Your task to perform on an android device: Search for bose soundlink mini on bestbuy.com, select the first entry, add it to the cart, then select checkout. Image 0: 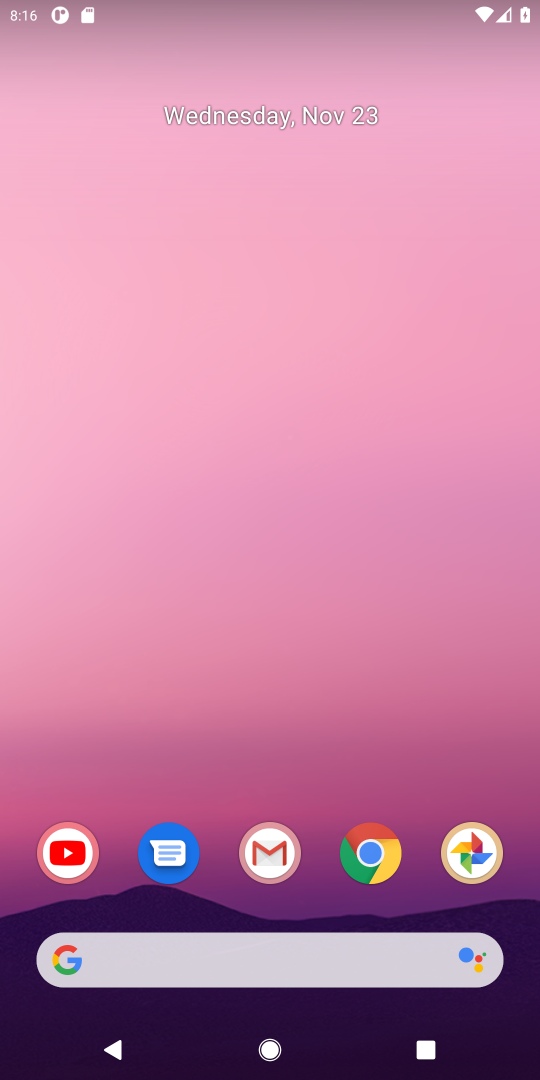
Step 0: click (376, 863)
Your task to perform on an android device: Search for bose soundlink mini on bestbuy.com, select the first entry, add it to the cart, then select checkout. Image 1: 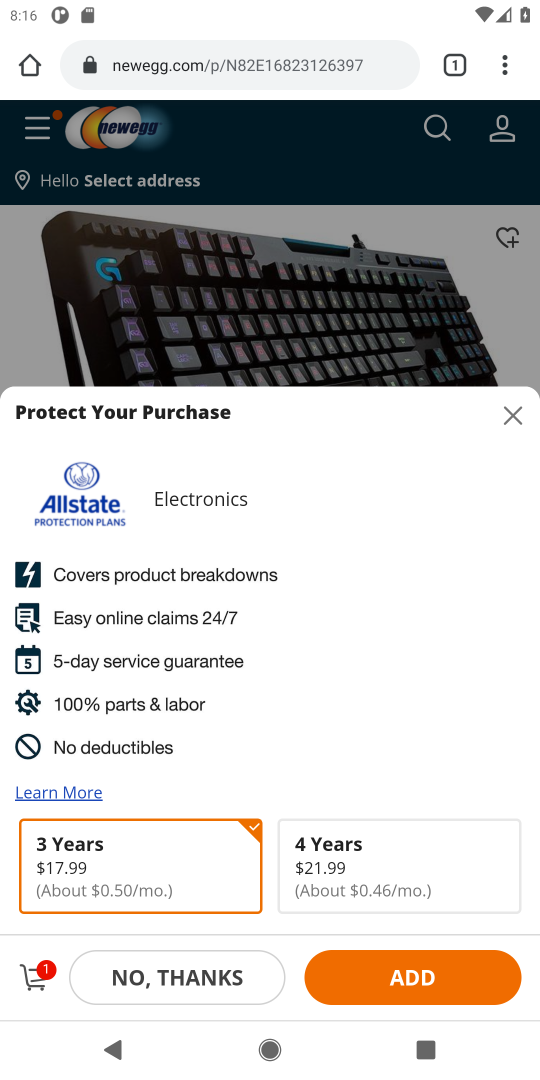
Step 1: click (241, 68)
Your task to perform on an android device: Search for bose soundlink mini on bestbuy.com, select the first entry, add it to the cart, then select checkout. Image 2: 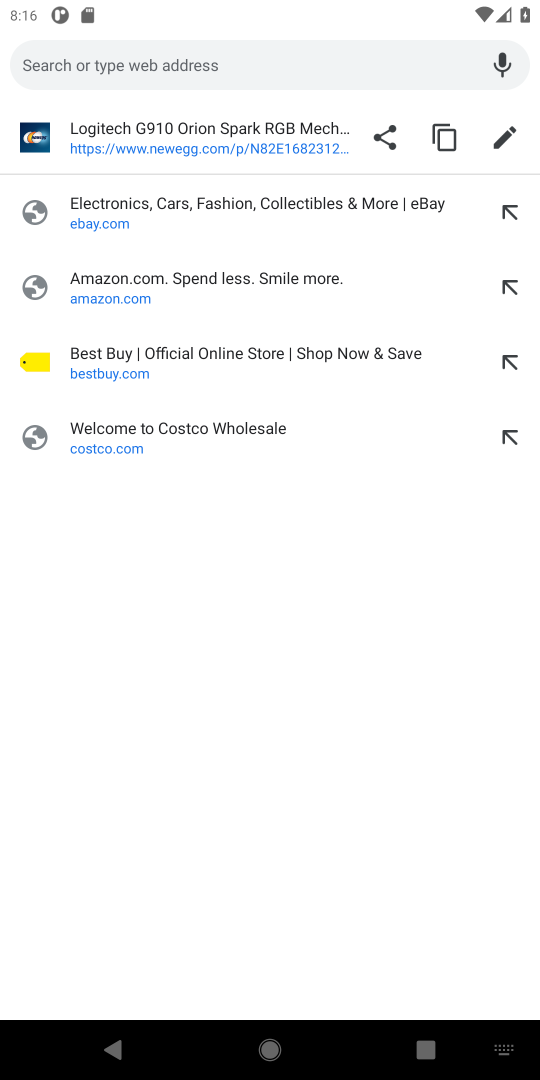
Step 2: click (107, 371)
Your task to perform on an android device: Search for bose soundlink mini on bestbuy.com, select the first entry, add it to the cart, then select checkout. Image 3: 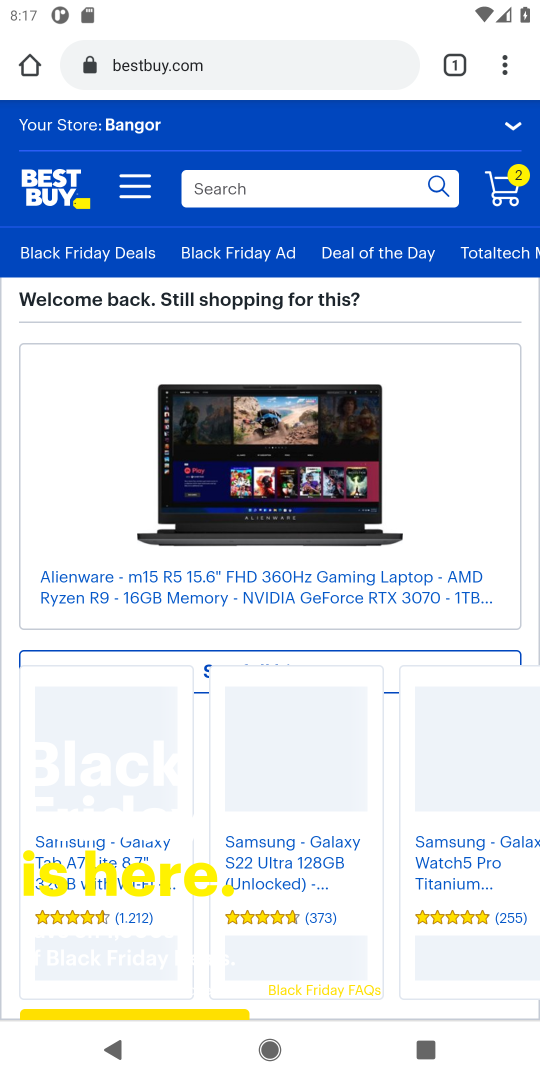
Step 3: click (223, 191)
Your task to perform on an android device: Search for bose soundlink mini on bestbuy.com, select the first entry, add it to the cart, then select checkout. Image 4: 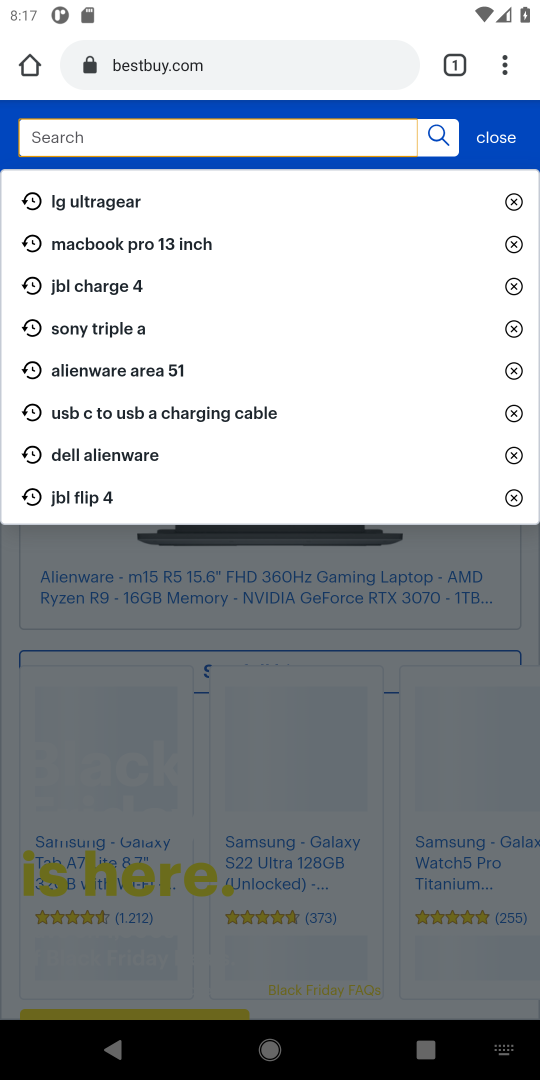
Step 4: type " bose soundlink mini "
Your task to perform on an android device: Search for bose soundlink mini on bestbuy.com, select the first entry, add it to the cart, then select checkout. Image 5: 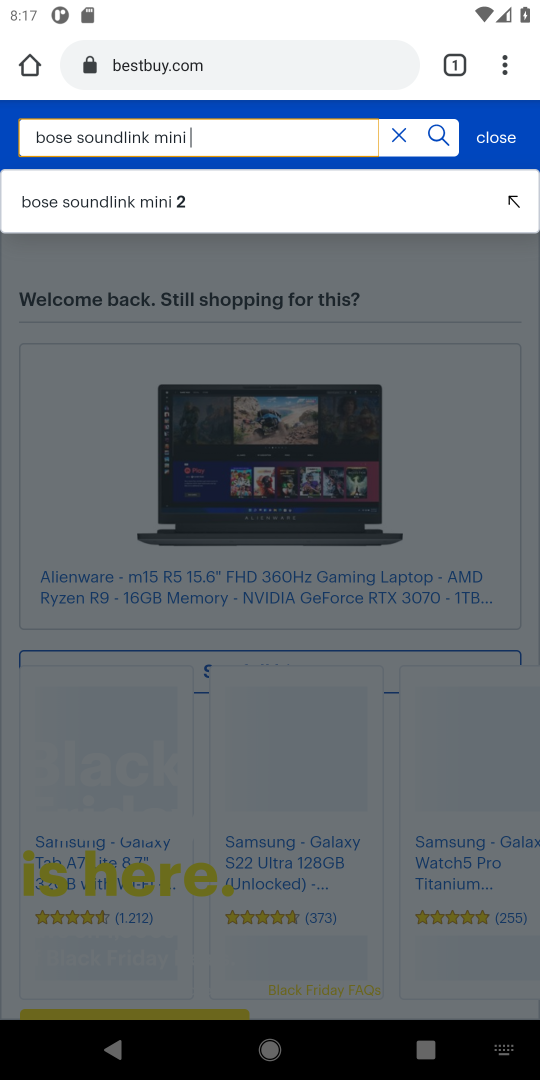
Step 5: click (435, 138)
Your task to perform on an android device: Search for bose soundlink mini on bestbuy.com, select the first entry, add it to the cart, then select checkout. Image 6: 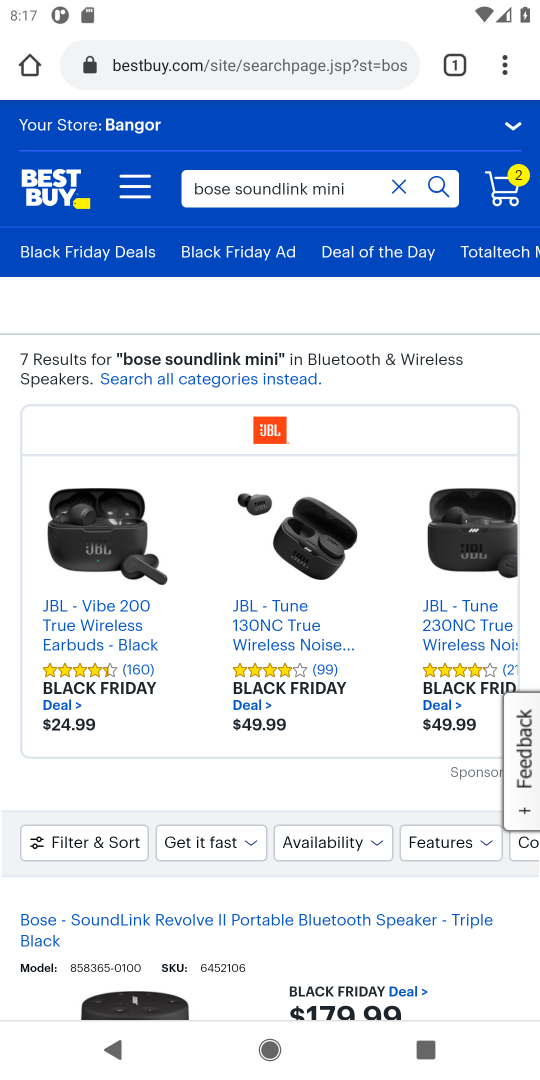
Step 6: task complete